Your task to perform on an android device: Open Amazon Image 0: 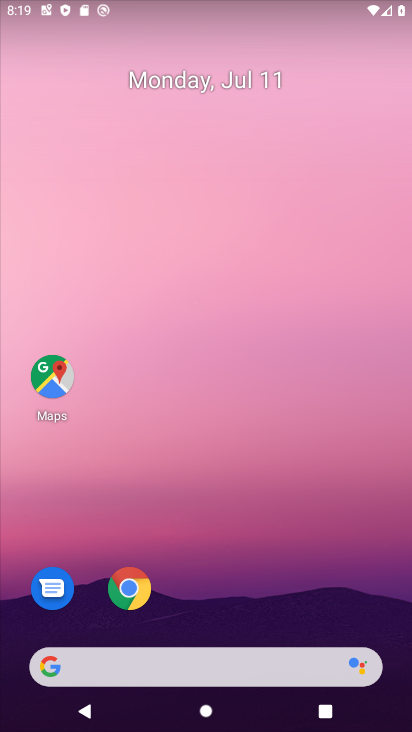
Step 0: click (131, 588)
Your task to perform on an android device: Open Amazon Image 1: 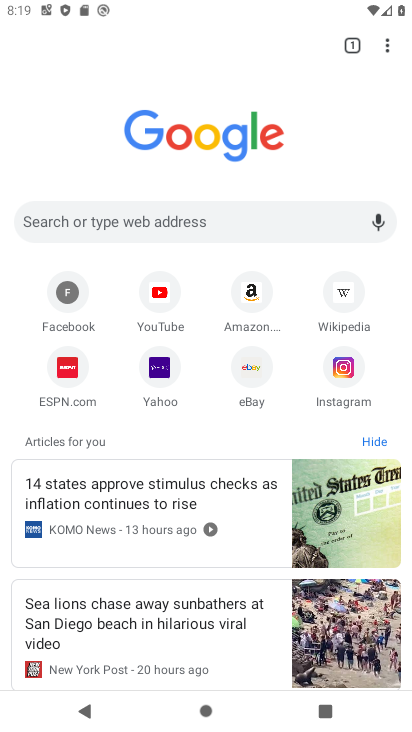
Step 1: click (243, 290)
Your task to perform on an android device: Open Amazon Image 2: 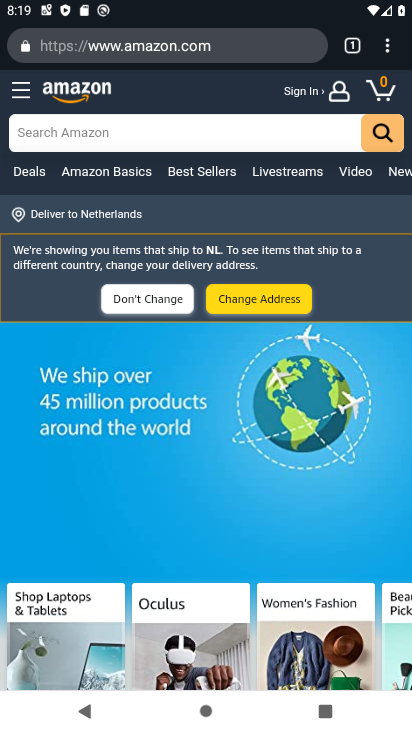
Step 2: task complete